Your task to perform on an android device: open app "Roku - Official Remote Control" Image 0: 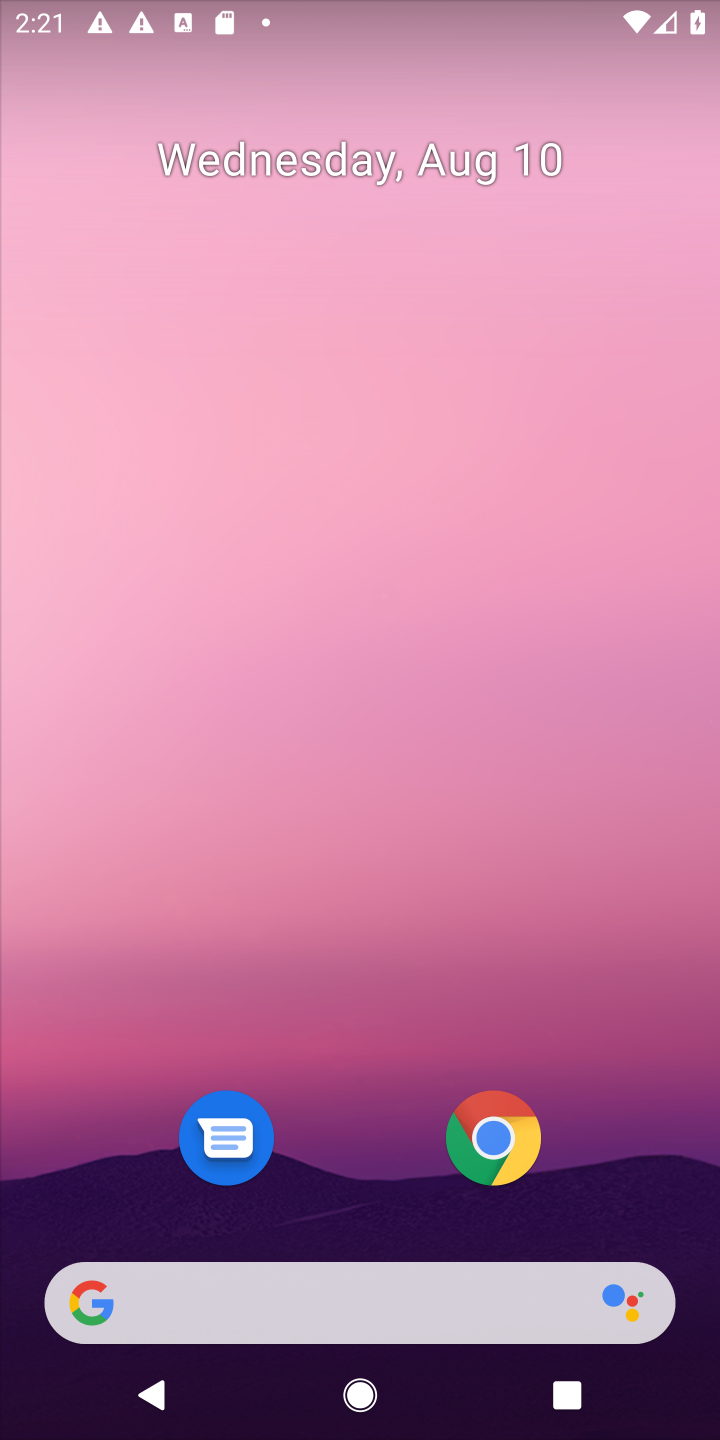
Step 0: press home button
Your task to perform on an android device: open app "Roku - Official Remote Control" Image 1: 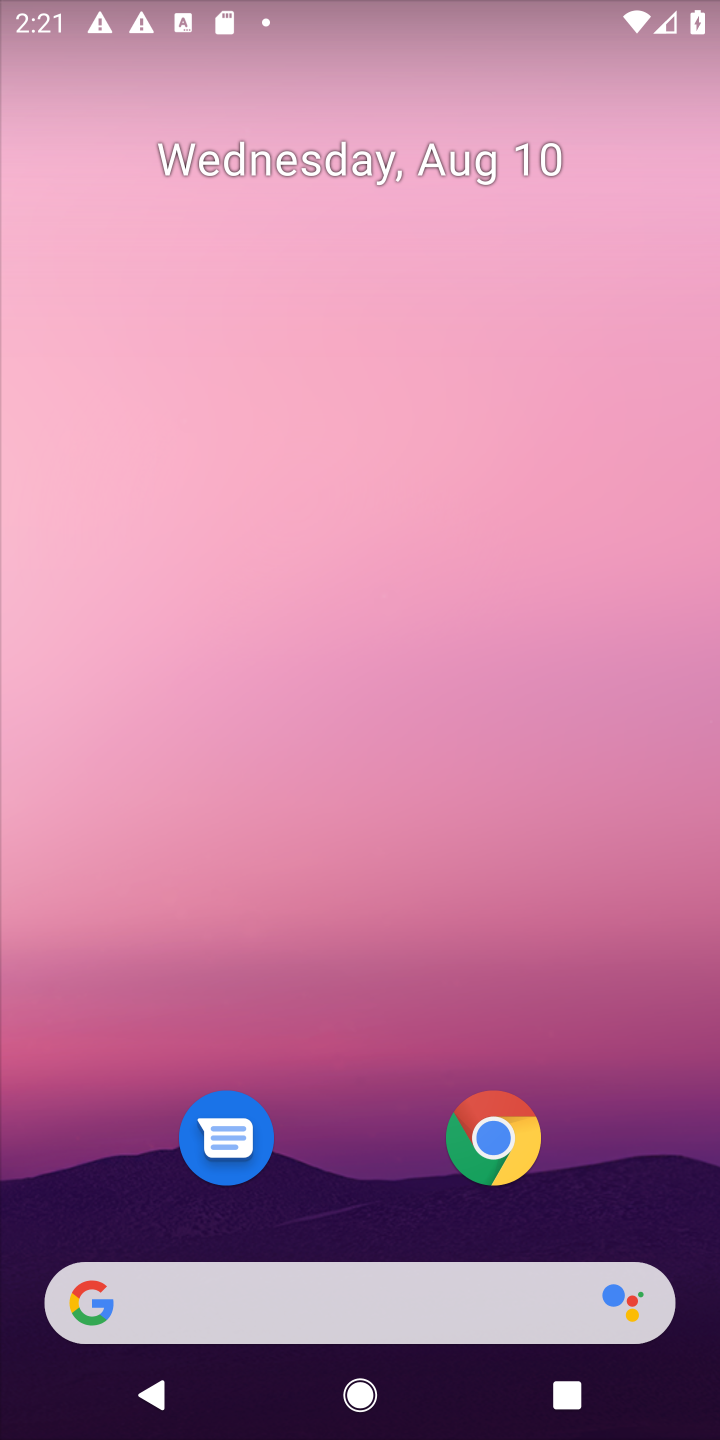
Step 1: drag from (596, 908) to (561, 57)
Your task to perform on an android device: open app "Roku - Official Remote Control" Image 2: 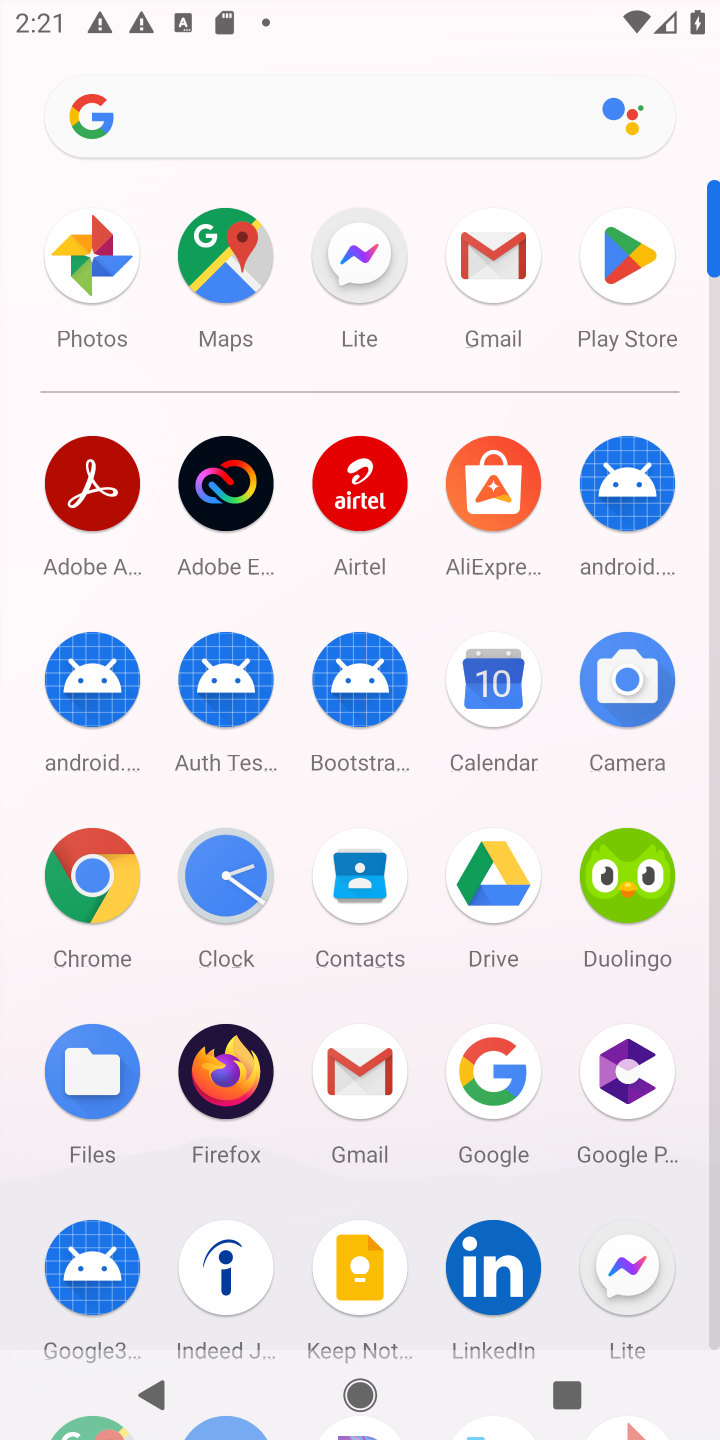
Step 2: click (635, 251)
Your task to perform on an android device: open app "Roku - Official Remote Control" Image 3: 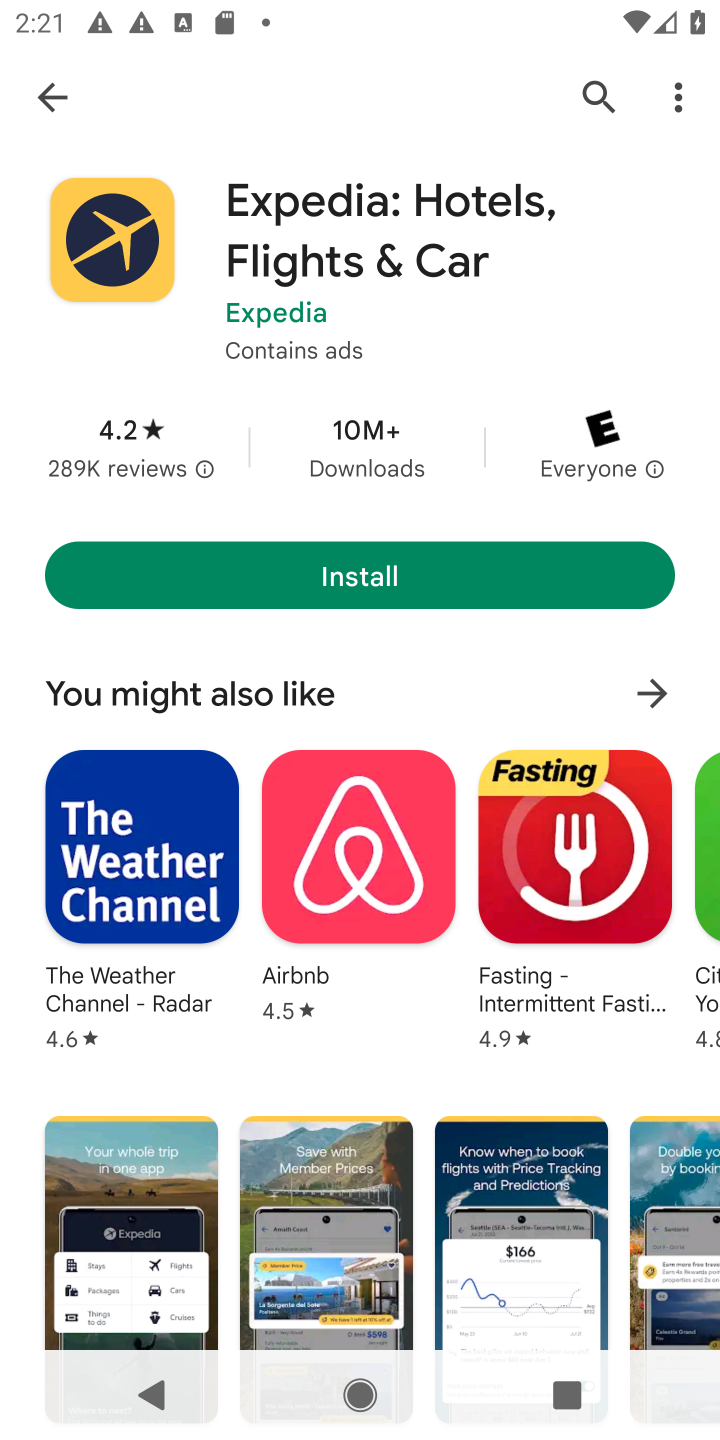
Step 3: click (602, 94)
Your task to perform on an android device: open app "Roku - Official Remote Control" Image 4: 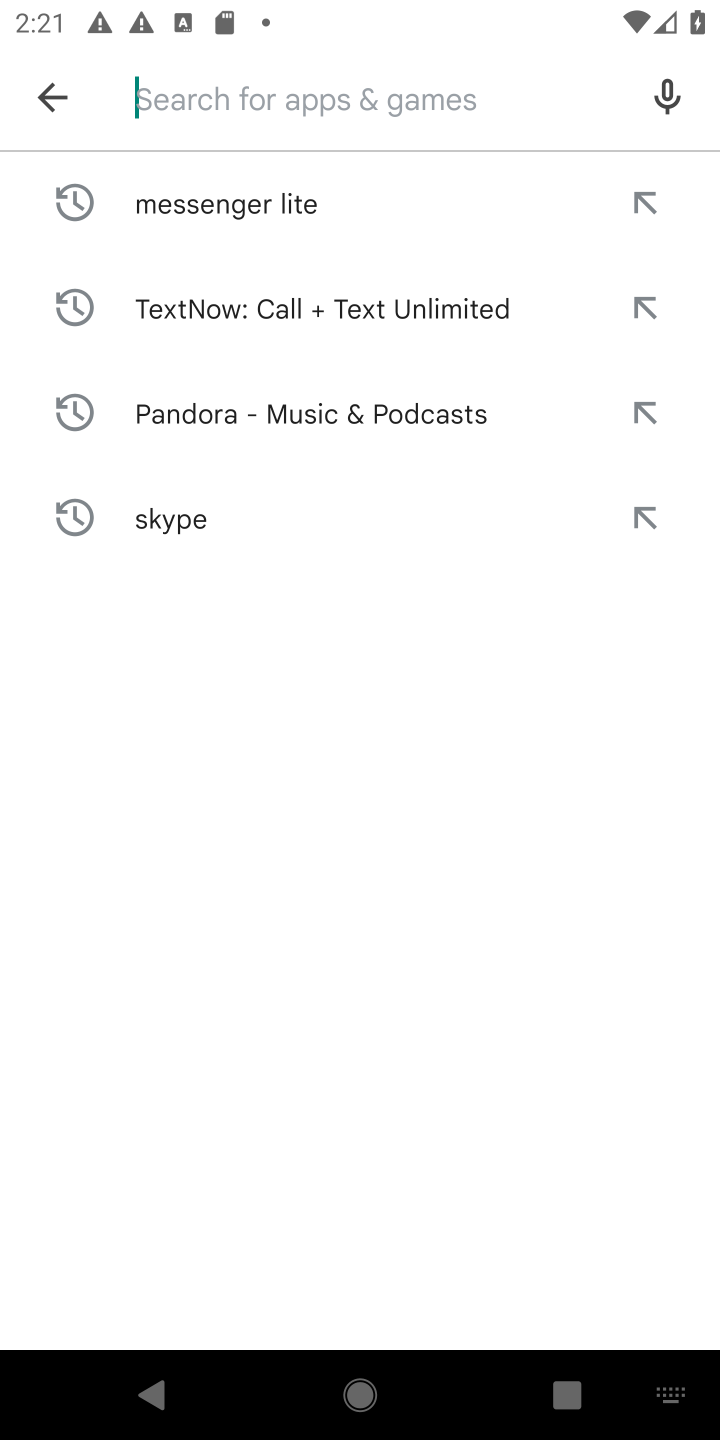
Step 4: type "Roku - Official Remote Control"
Your task to perform on an android device: open app "Roku - Official Remote Control" Image 5: 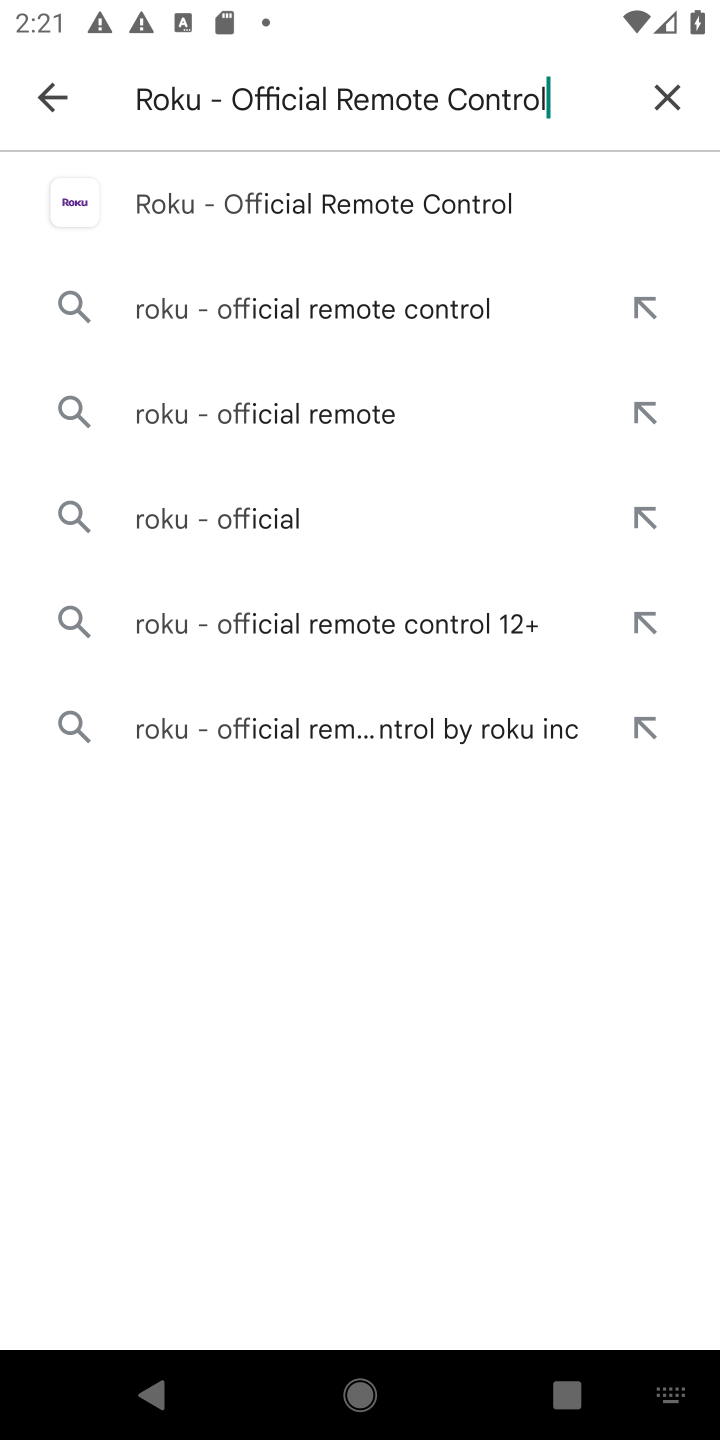
Step 5: press enter
Your task to perform on an android device: open app "Roku - Official Remote Control" Image 6: 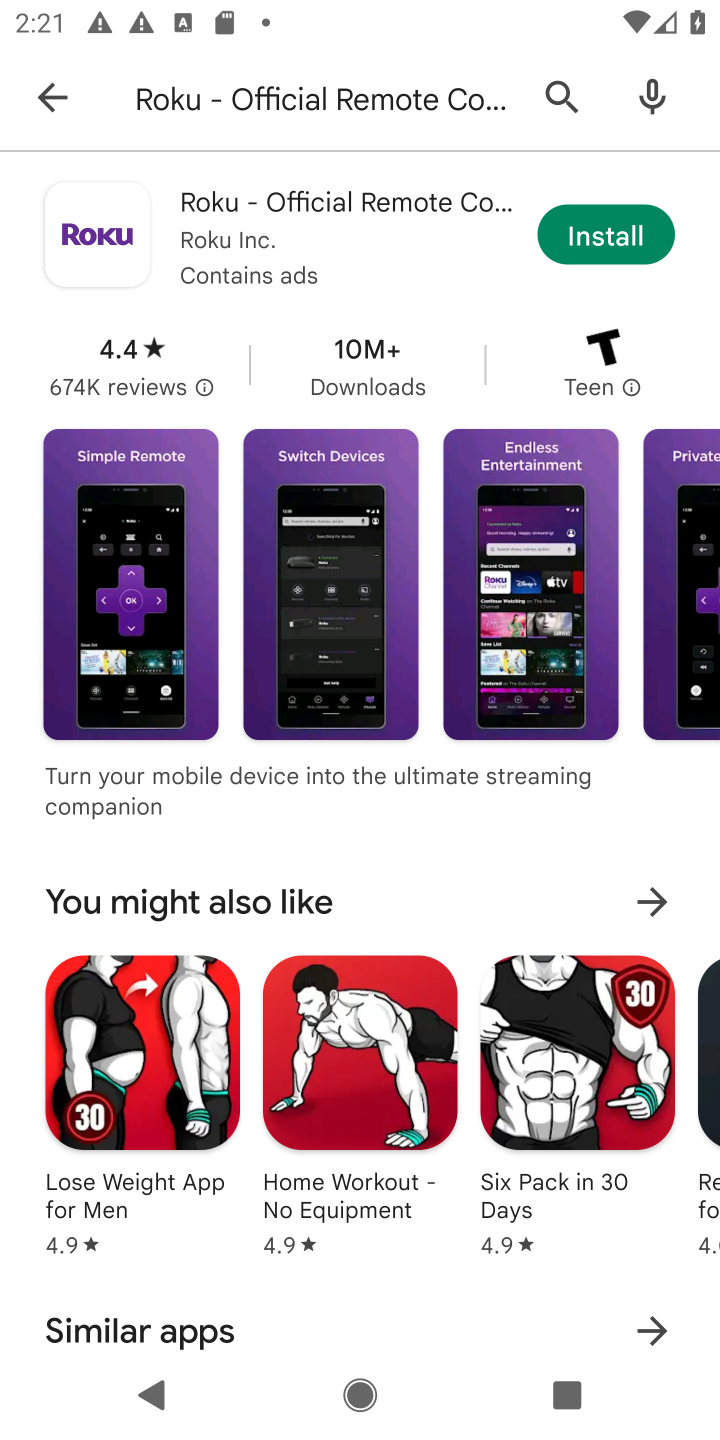
Step 6: task complete